Your task to perform on an android device: change the clock display to show seconds Image 0: 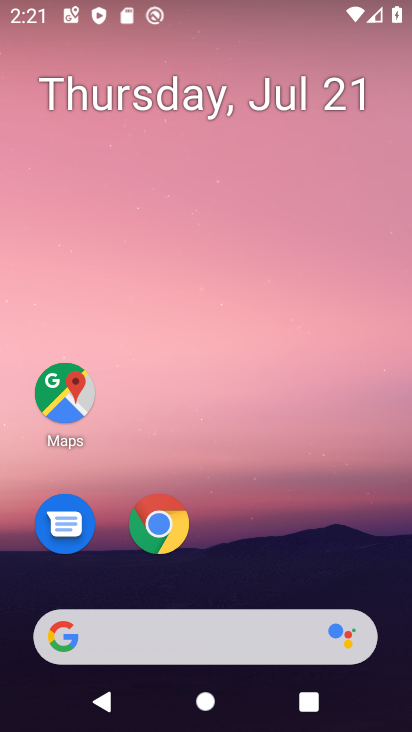
Step 0: drag from (264, 547) to (268, 79)
Your task to perform on an android device: change the clock display to show seconds Image 1: 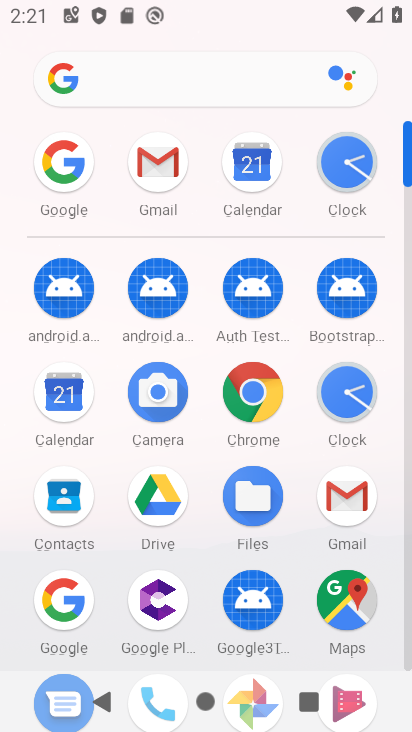
Step 1: click (348, 172)
Your task to perform on an android device: change the clock display to show seconds Image 2: 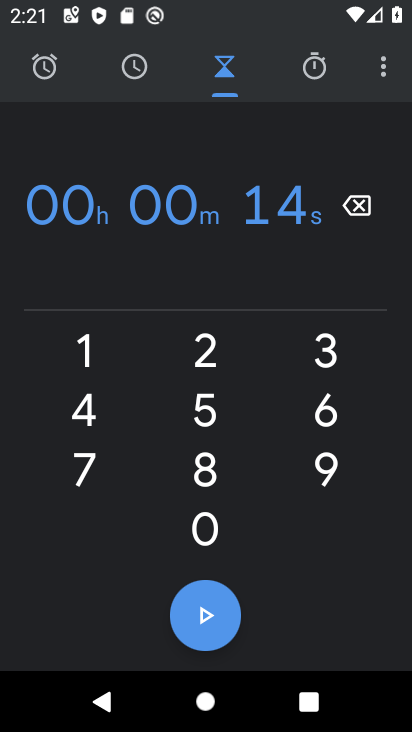
Step 2: click (140, 66)
Your task to perform on an android device: change the clock display to show seconds Image 3: 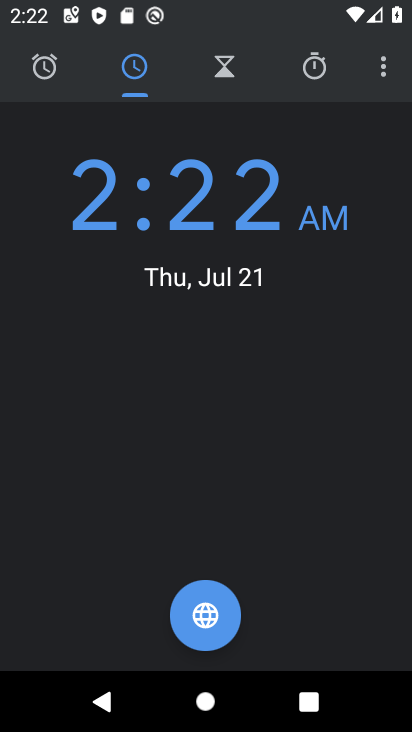
Step 3: click (386, 71)
Your task to perform on an android device: change the clock display to show seconds Image 4: 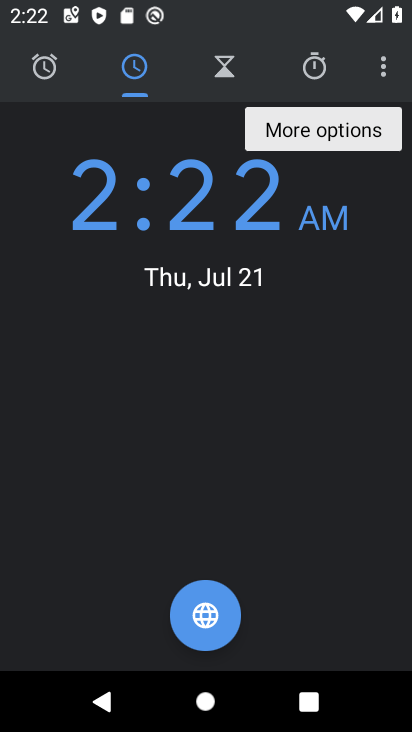
Step 4: click (386, 69)
Your task to perform on an android device: change the clock display to show seconds Image 5: 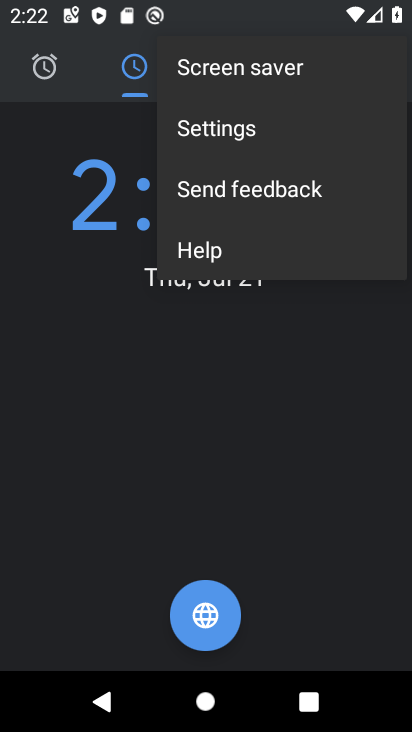
Step 5: click (253, 127)
Your task to perform on an android device: change the clock display to show seconds Image 6: 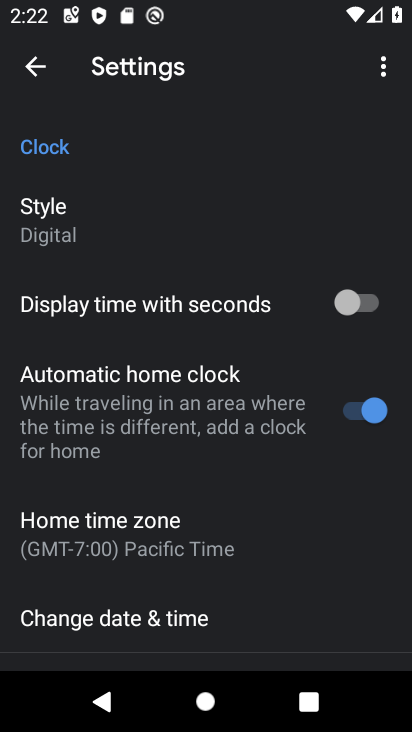
Step 6: click (359, 294)
Your task to perform on an android device: change the clock display to show seconds Image 7: 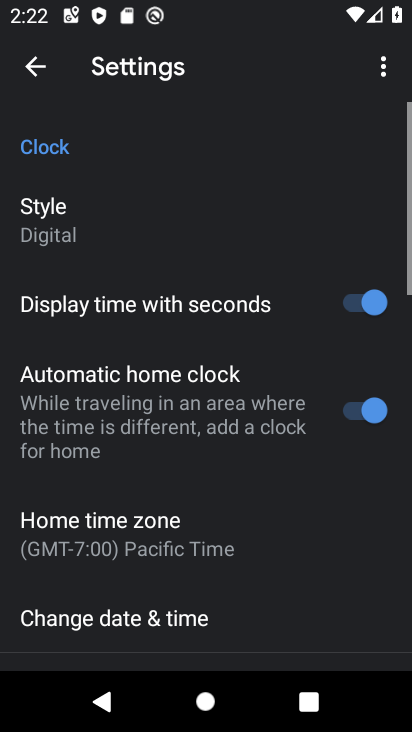
Step 7: click (33, 61)
Your task to perform on an android device: change the clock display to show seconds Image 8: 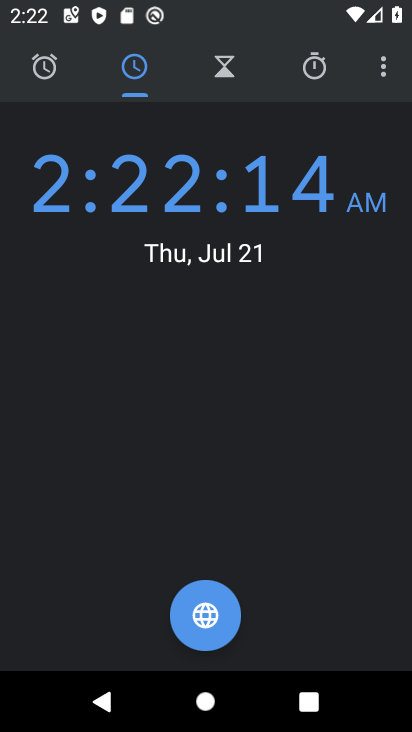
Step 8: task complete